Your task to perform on an android device: Open Google Maps Image 0: 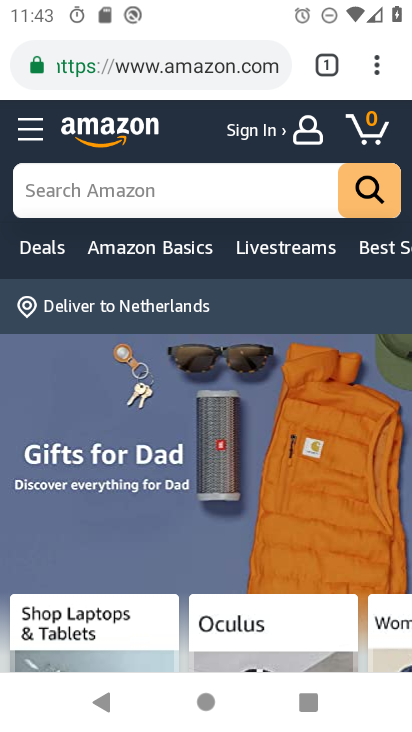
Step 0: press home button
Your task to perform on an android device: Open Google Maps Image 1: 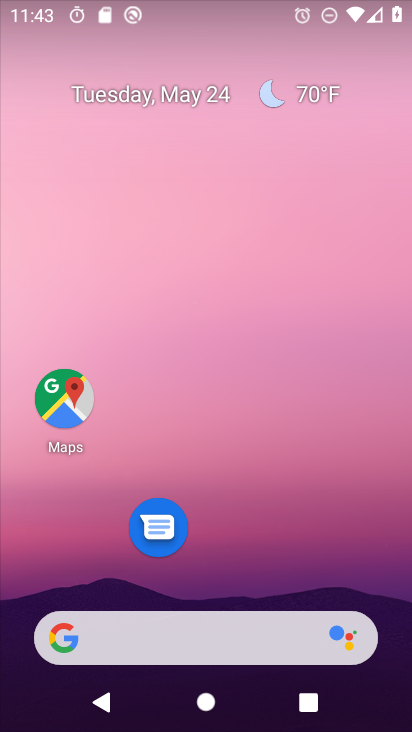
Step 1: click (64, 401)
Your task to perform on an android device: Open Google Maps Image 2: 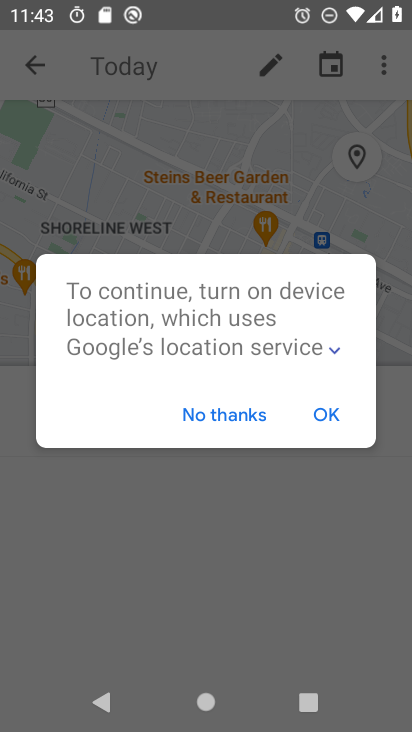
Step 2: click (330, 413)
Your task to perform on an android device: Open Google Maps Image 3: 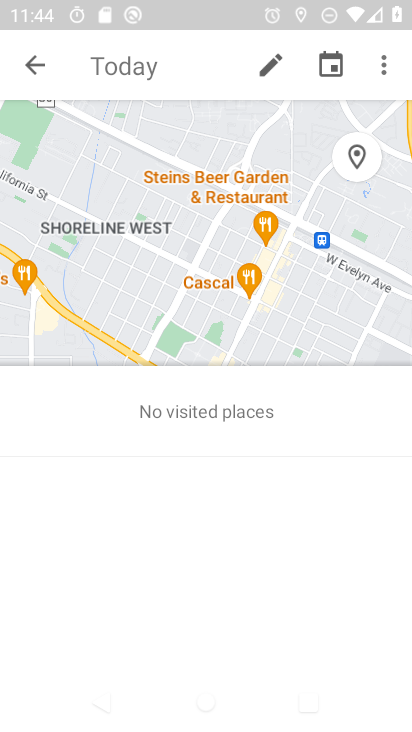
Step 3: task complete